Your task to perform on an android device: Search for Italian restaurants on Maps Image 0: 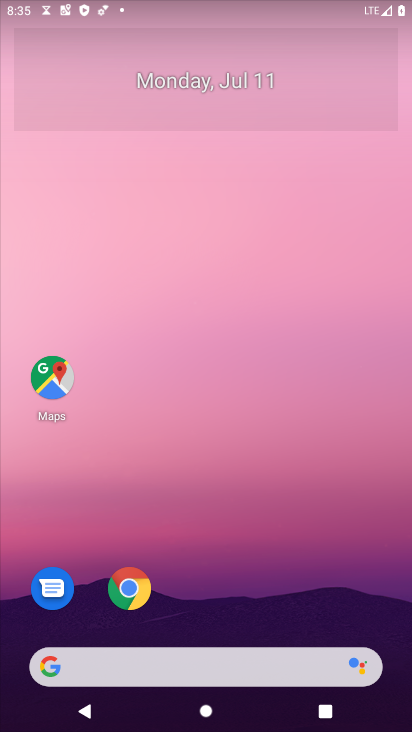
Step 0: press home button
Your task to perform on an android device: Search for Italian restaurants on Maps Image 1: 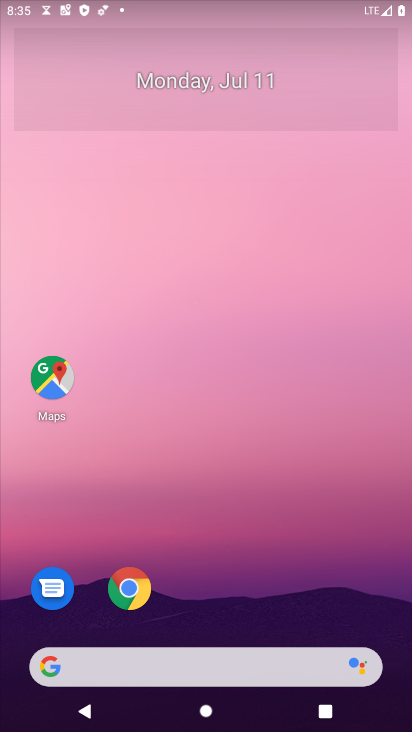
Step 1: click (49, 374)
Your task to perform on an android device: Search for Italian restaurants on Maps Image 2: 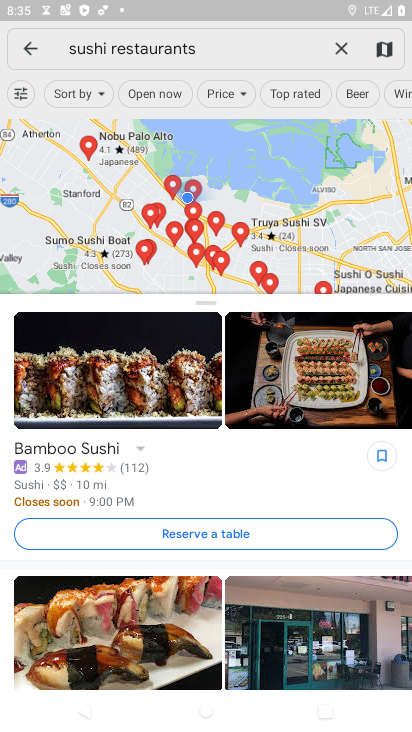
Step 2: click (339, 46)
Your task to perform on an android device: Search for Italian restaurants on Maps Image 3: 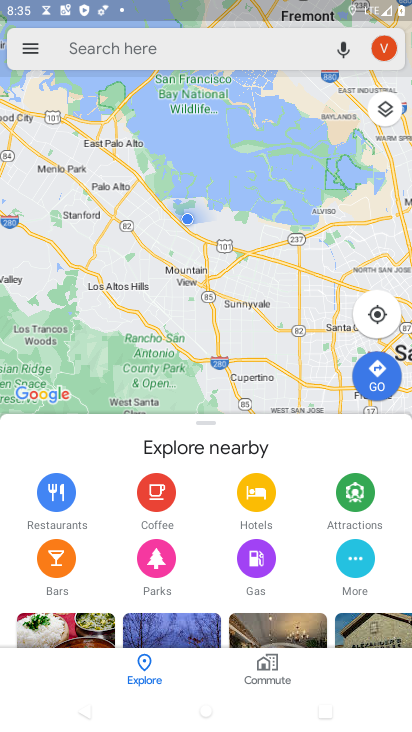
Step 3: type " Italian restaurants"
Your task to perform on an android device: Search for Italian restaurants on Maps Image 4: 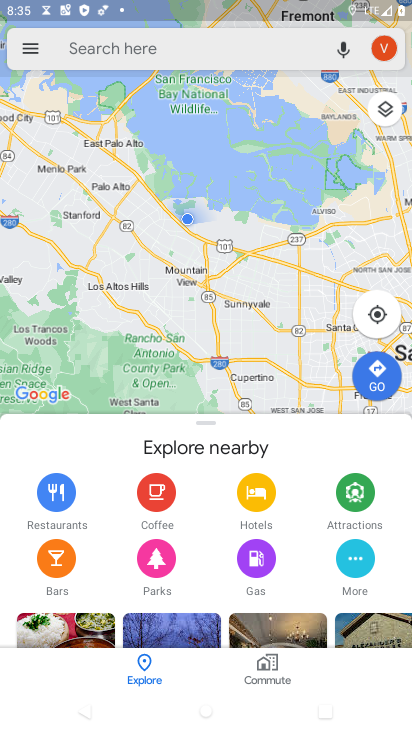
Step 4: click (111, 52)
Your task to perform on an android device: Search for Italian restaurants on Maps Image 5: 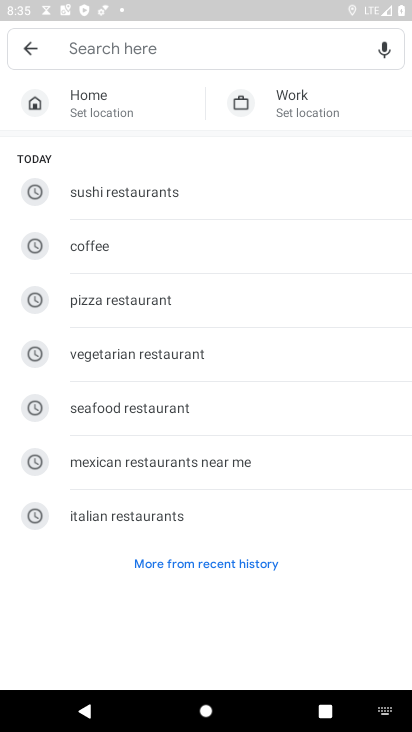
Step 5: click (88, 511)
Your task to perform on an android device: Search for Italian restaurants on Maps Image 6: 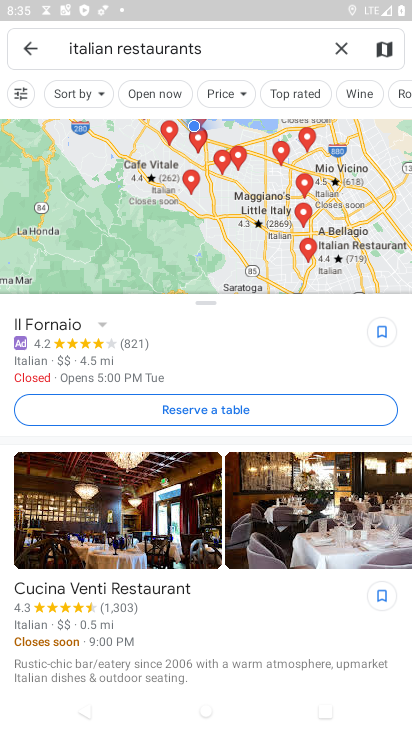
Step 6: task complete